Your task to perform on an android device: Go to Android settings Image 0: 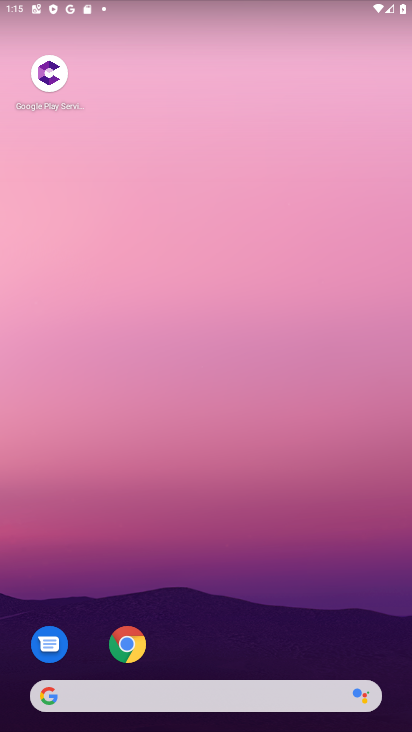
Step 0: drag from (255, 593) to (251, 305)
Your task to perform on an android device: Go to Android settings Image 1: 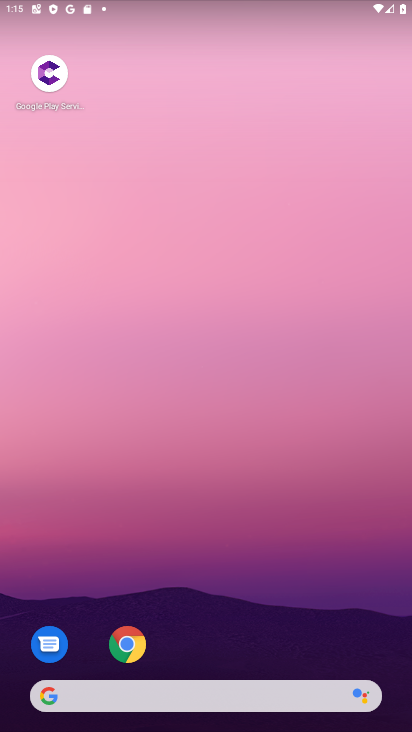
Step 1: drag from (241, 544) to (247, 217)
Your task to perform on an android device: Go to Android settings Image 2: 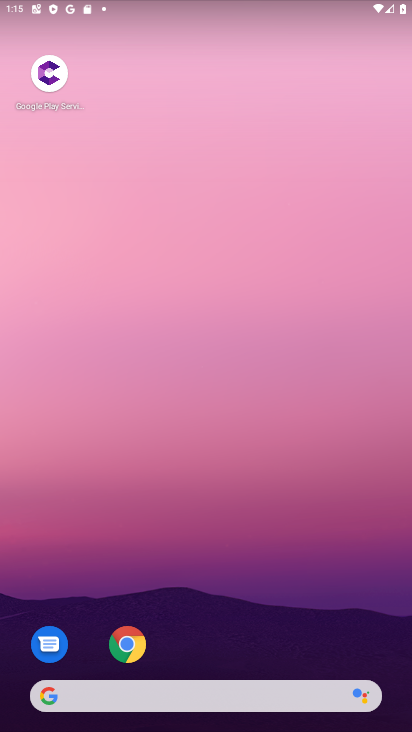
Step 2: drag from (255, 601) to (251, 185)
Your task to perform on an android device: Go to Android settings Image 3: 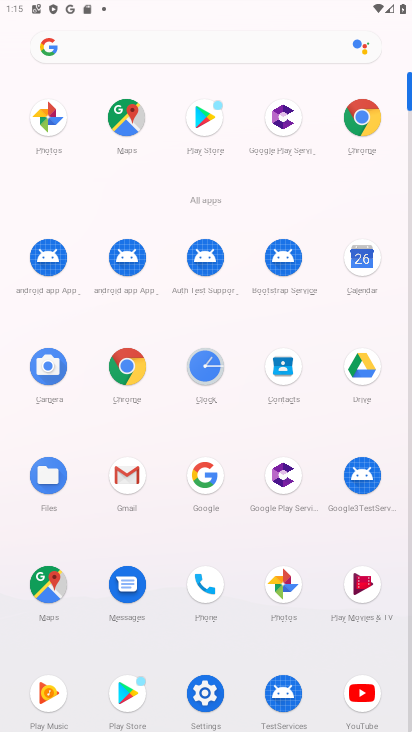
Step 3: click (202, 688)
Your task to perform on an android device: Go to Android settings Image 4: 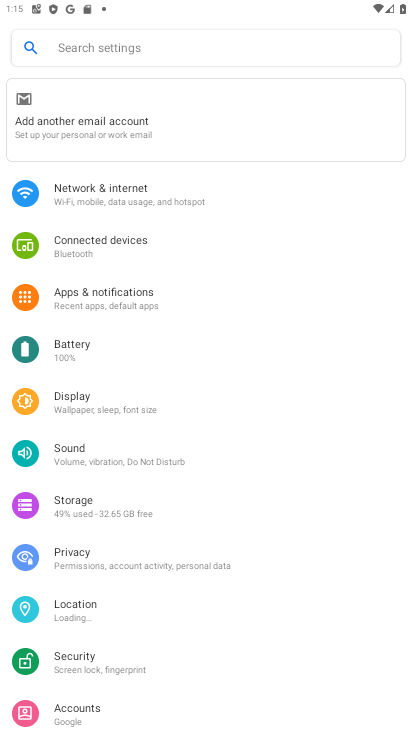
Step 4: drag from (127, 642) to (171, 174)
Your task to perform on an android device: Go to Android settings Image 5: 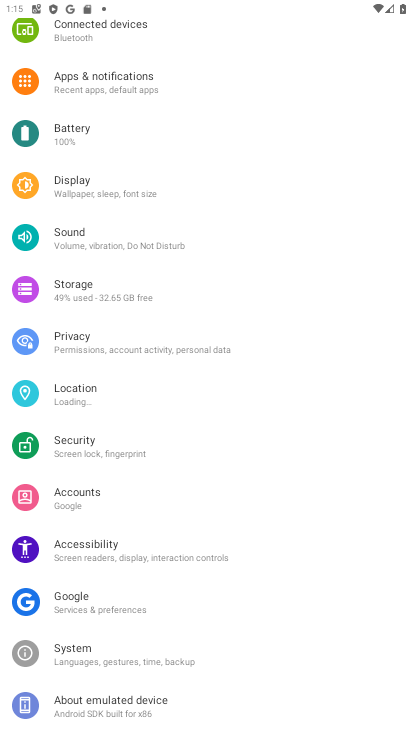
Step 5: click (129, 696)
Your task to perform on an android device: Go to Android settings Image 6: 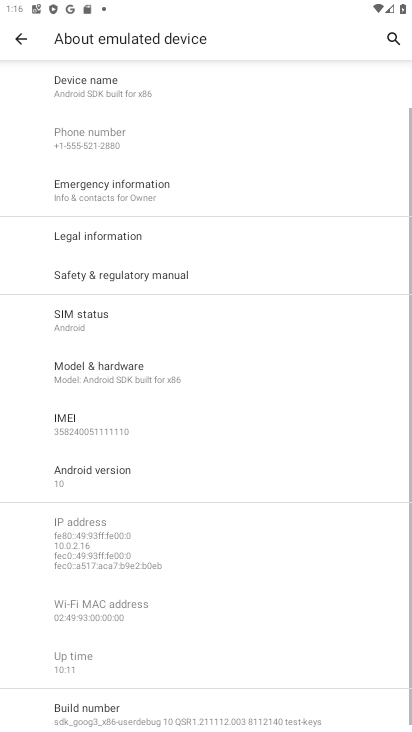
Step 6: task complete